Your task to perform on an android device: create a new album in the google photos Image 0: 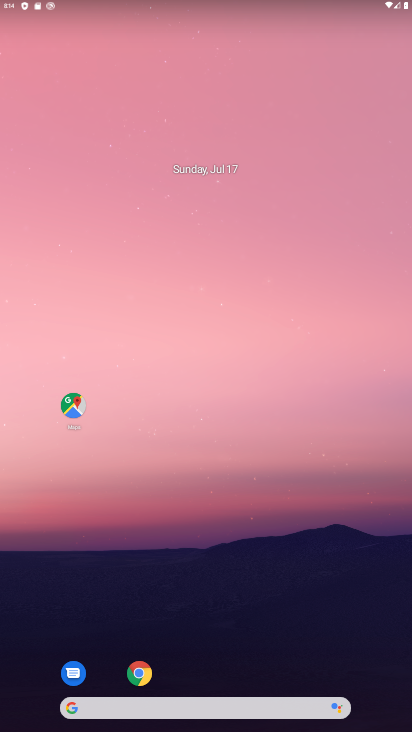
Step 0: drag from (320, 618) to (190, 15)
Your task to perform on an android device: create a new album in the google photos Image 1: 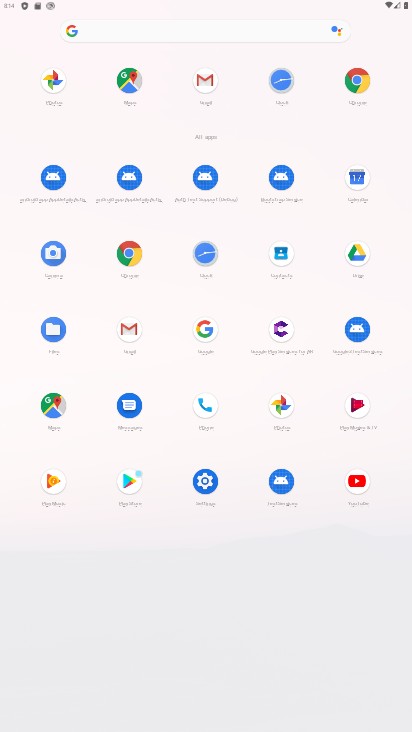
Step 1: click (47, 79)
Your task to perform on an android device: create a new album in the google photos Image 2: 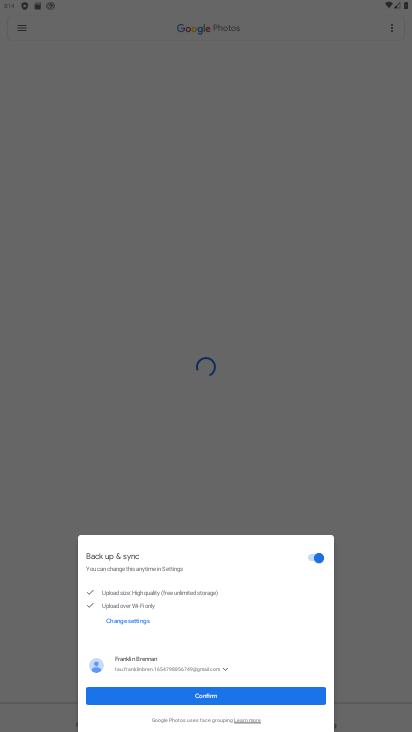
Step 2: click (237, 695)
Your task to perform on an android device: create a new album in the google photos Image 3: 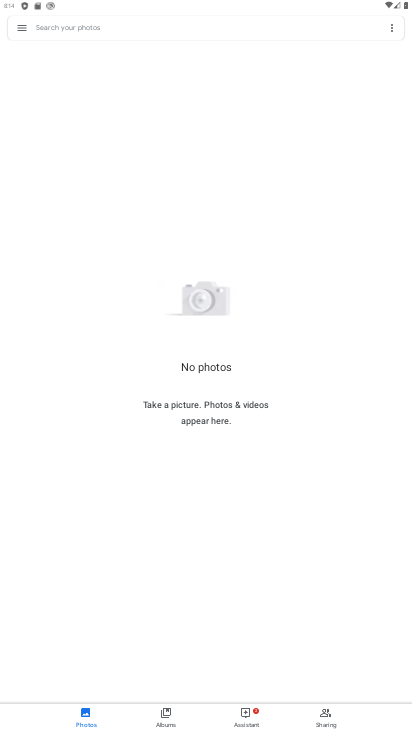
Step 3: task complete